Your task to perform on an android device: Search for corsair k70 on costco, select the first entry, and add it to the cart. Image 0: 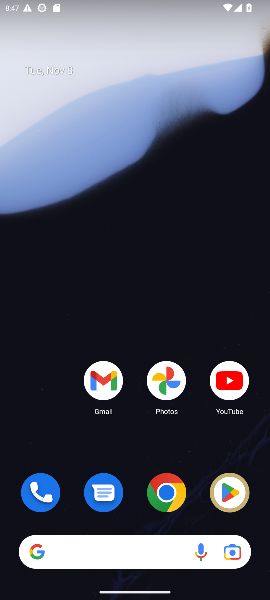
Step 0: click (171, 498)
Your task to perform on an android device: Search for corsair k70 on costco, select the first entry, and add it to the cart. Image 1: 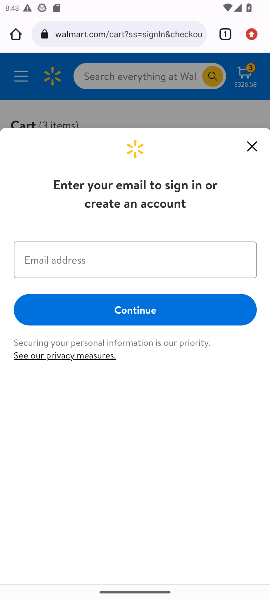
Step 1: click (133, 29)
Your task to perform on an android device: Search for corsair k70 on costco, select the first entry, and add it to the cart. Image 2: 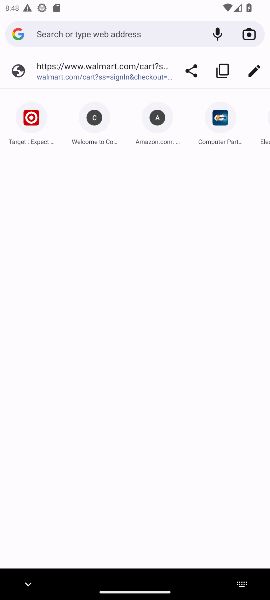
Step 2: type "costco"
Your task to perform on an android device: Search for corsair k70 on costco, select the first entry, and add it to the cart. Image 3: 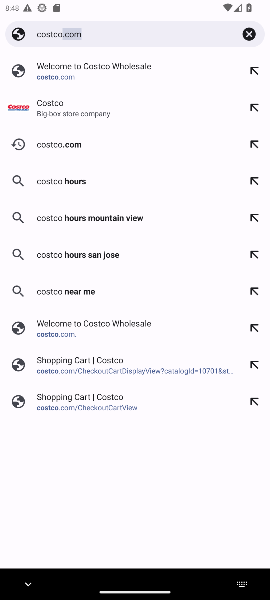
Step 3: click (132, 26)
Your task to perform on an android device: Search for corsair k70 on costco, select the first entry, and add it to the cart. Image 4: 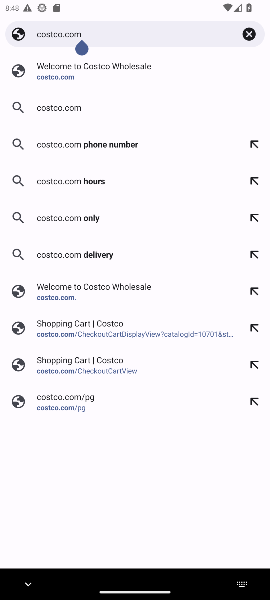
Step 4: click (63, 104)
Your task to perform on an android device: Search for corsair k70 on costco, select the first entry, and add it to the cart. Image 5: 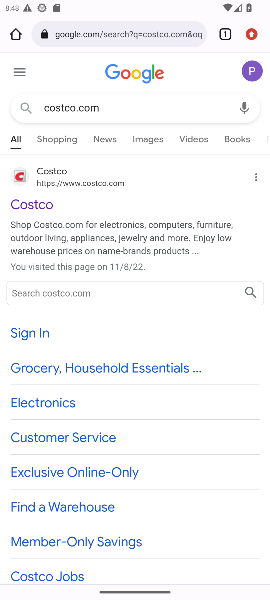
Step 5: click (55, 181)
Your task to perform on an android device: Search for corsair k70 on costco, select the first entry, and add it to the cart. Image 6: 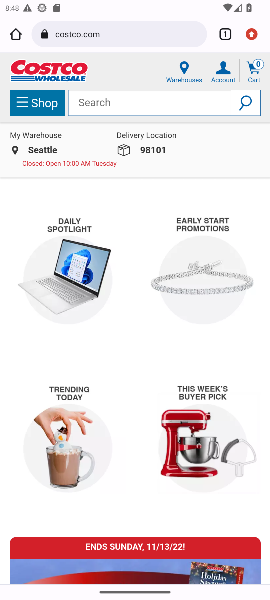
Step 6: click (167, 97)
Your task to perform on an android device: Search for corsair k70 on costco, select the first entry, and add it to the cart. Image 7: 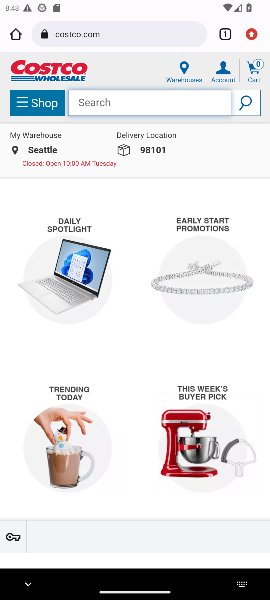
Step 7: type "corsair k70"
Your task to perform on an android device: Search for corsair k70 on costco, select the first entry, and add it to the cart. Image 8: 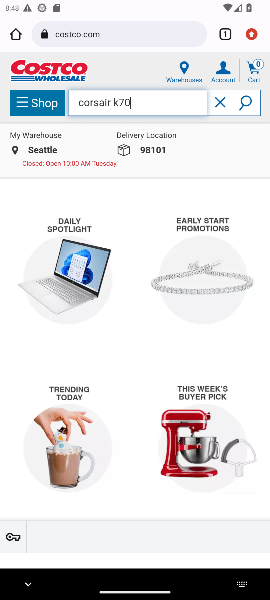
Step 8: click (227, 162)
Your task to perform on an android device: Search for corsair k70 on costco, select the first entry, and add it to the cart. Image 9: 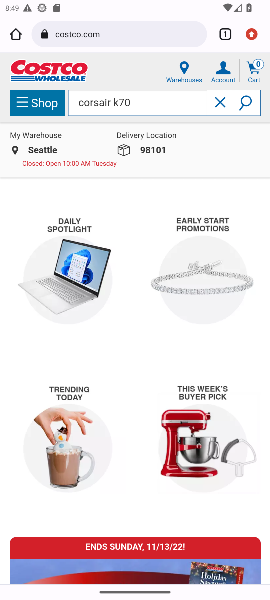
Step 9: task complete